Your task to perform on an android device: search for starred emails in the gmail app Image 0: 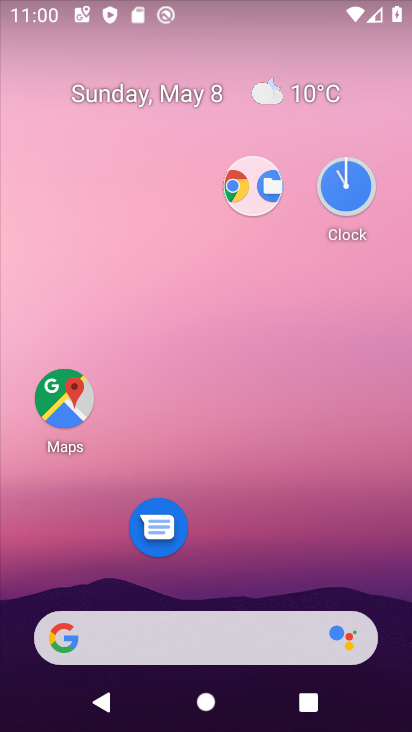
Step 0: drag from (237, 530) to (279, 48)
Your task to perform on an android device: search for starred emails in the gmail app Image 1: 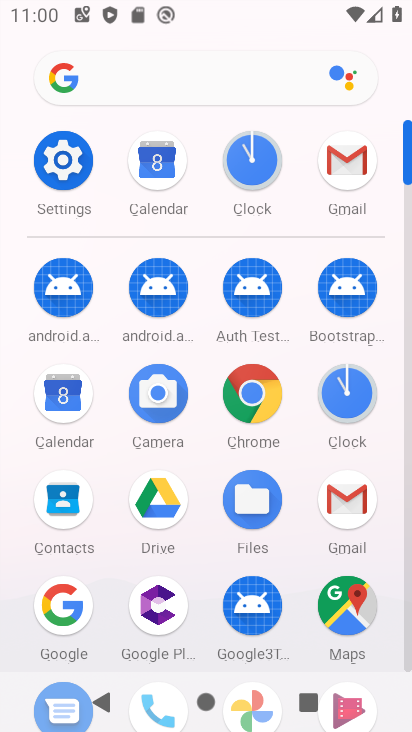
Step 1: drag from (209, 561) to (219, 325)
Your task to perform on an android device: search for starred emails in the gmail app Image 2: 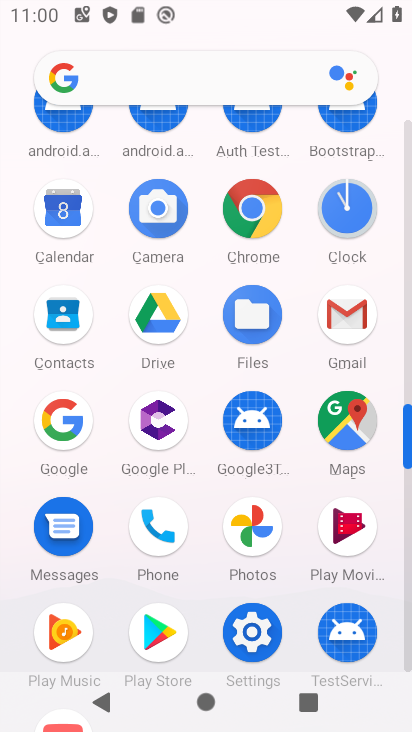
Step 2: drag from (250, 147) to (287, 615)
Your task to perform on an android device: search for starred emails in the gmail app Image 3: 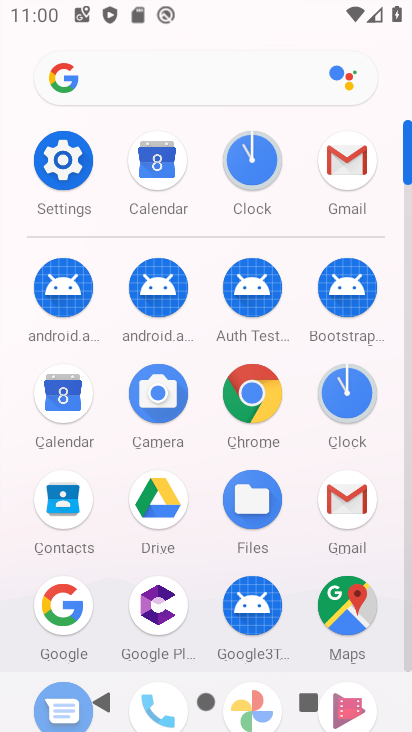
Step 3: click (346, 168)
Your task to perform on an android device: search for starred emails in the gmail app Image 4: 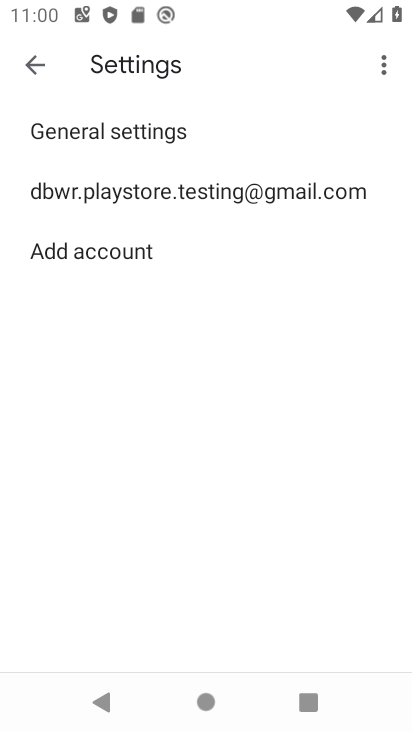
Step 4: task complete